Your task to perform on an android device: set default search engine in the chrome app Image 0: 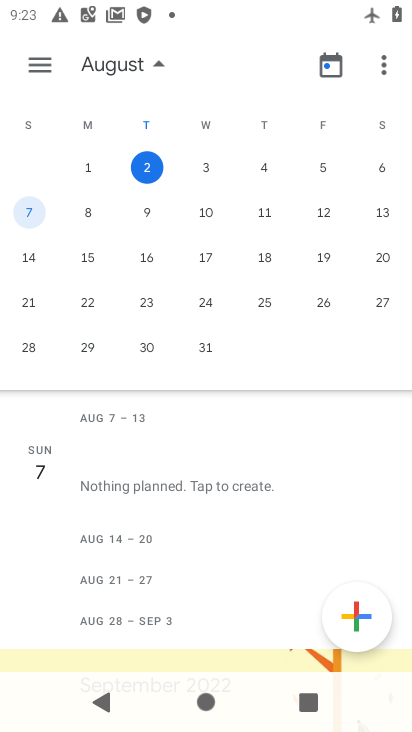
Step 0: press home button
Your task to perform on an android device: set default search engine in the chrome app Image 1: 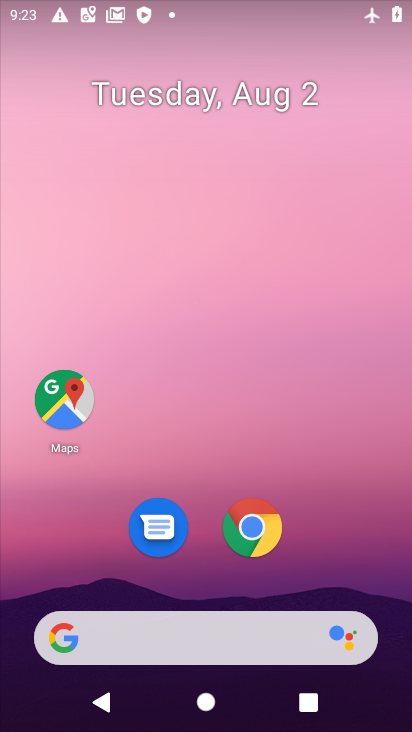
Step 1: drag from (169, 573) to (130, 189)
Your task to perform on an android device: set default search engine in the chrome app Image 2: 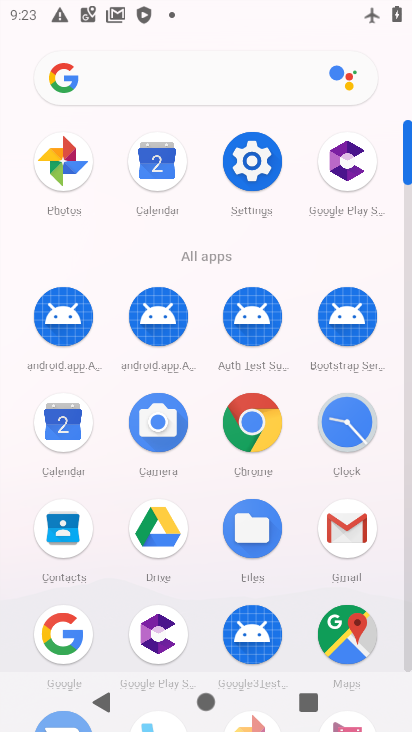
Step 2: click (239, 429)
Your task to perform on an android device: set default search engine in the chrome app Image 3: 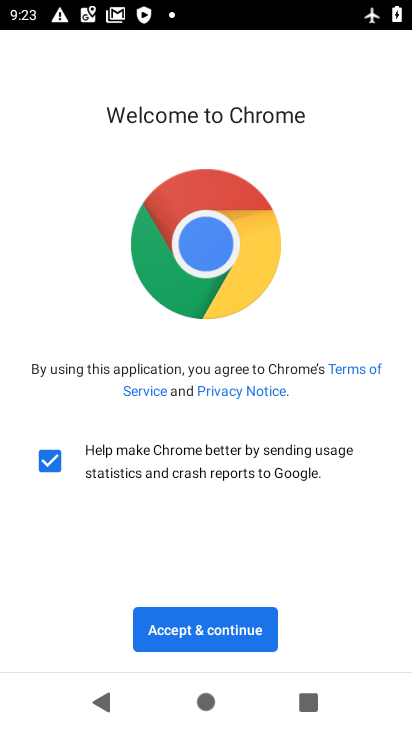
Step 3: click (184, 632)
Your task to perform on an android device: set default search engine in the chrome app Image 4: 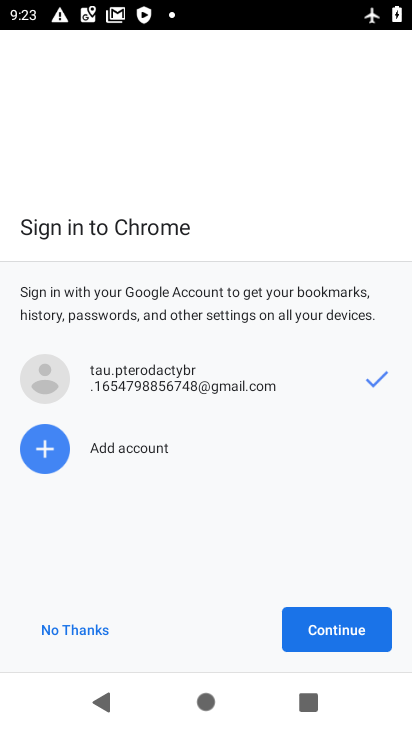
Step 4: click (362, 633)
Your task to perform on an android device: set default search engine in the chrome app Image 5: 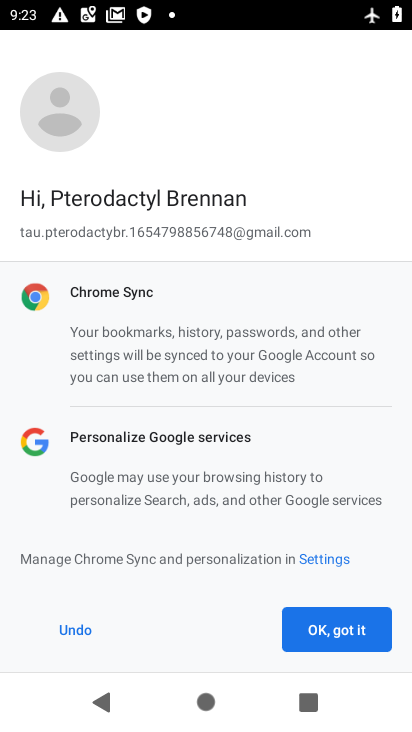
Step 5: click (362, 633)
Your task to perform on an android device: set default search engine in the chrome app Image 6: 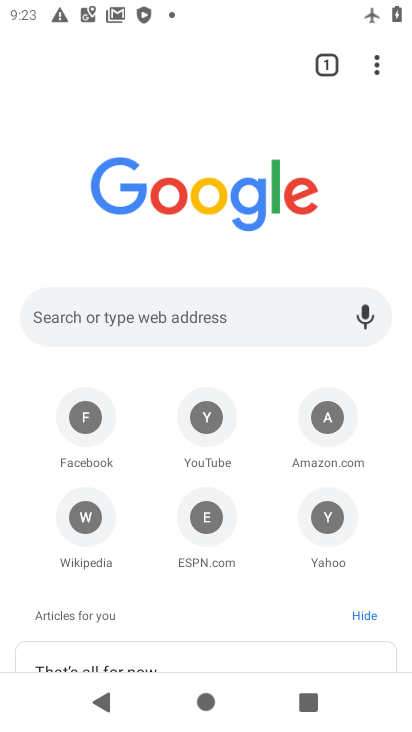
Step 6: click (372, 64)
Your task to perform on an android device: set default search engine in the chrome app Image 7: 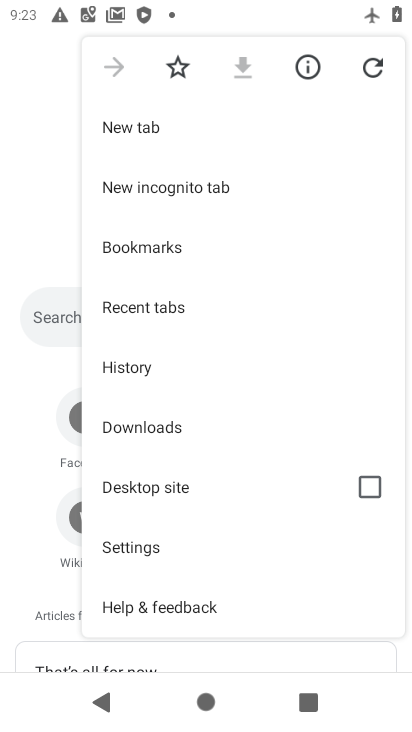
Step 7: click (143, 547)
Your task to perform on an android device: set default search engine in the chrome app Image 8: 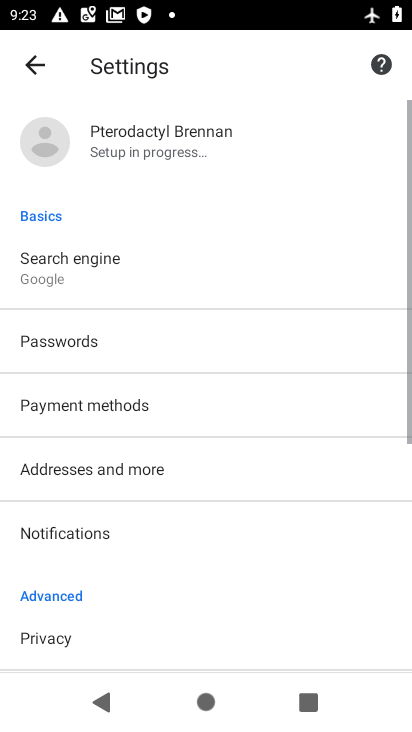
Step 8: click (62, 278)
Your task to perform on an android device: set default search engine in the chrome app Image 9: 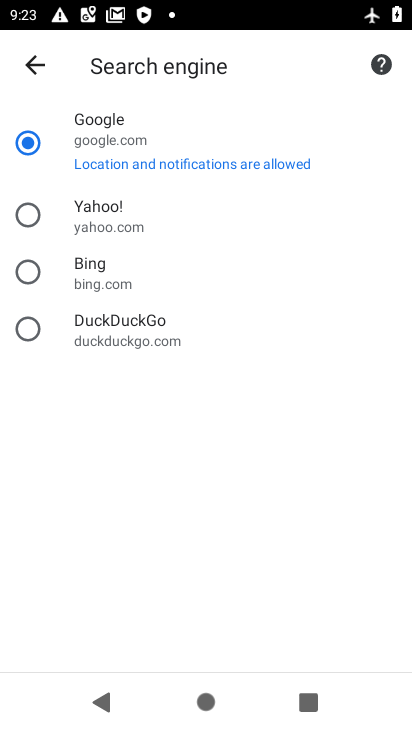
Step 9: task complete